Your task to perform on an android device: Open Google Chrome and click the shortcut for Amazon.com Image 0: 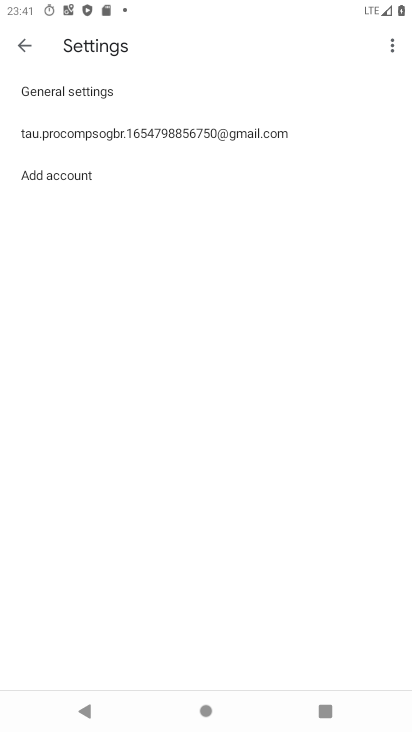
Step 0: press home button
Your task to perform on an android device: Open Google Chrome and click the shortcut for Amazon.com Image 1: 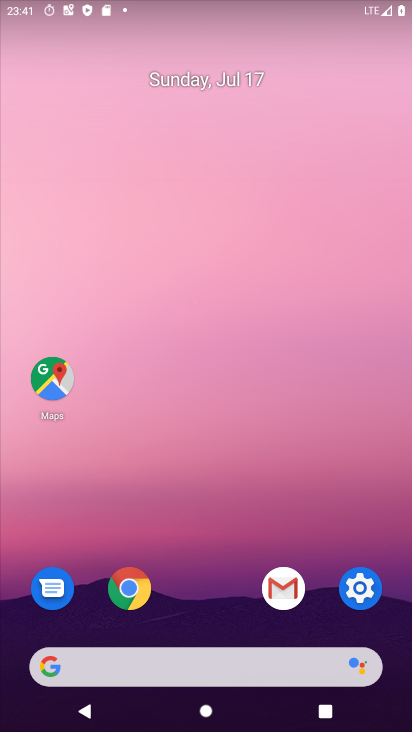
Step 1: click (129, 601)
Your task to perform on an android device: Open Google Chrome and click the shortcut for Amazon.com Image 2: 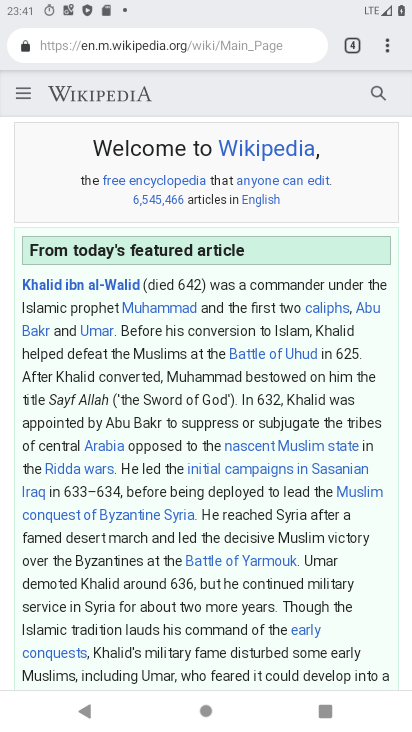
Step 2: click (389, 52)
Your task to perform on an android device: Open Google Chrome and click the shortcut for Amazon.com Image 3: 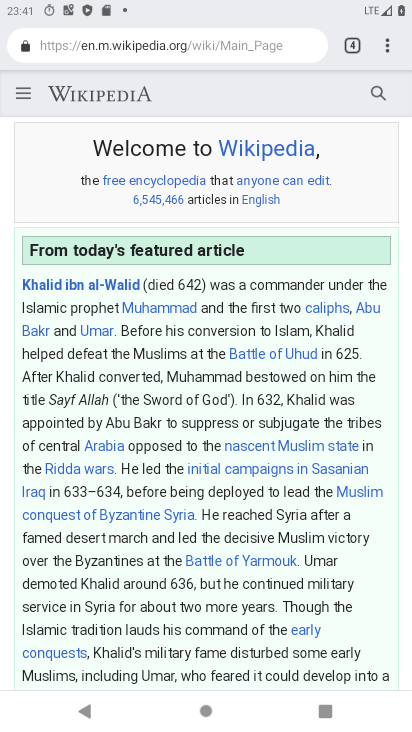
Step 3: click (379, 55)
Your task to perform on an android device: Open Google Chrome and click the shortcut for Amazon.com Image 4: 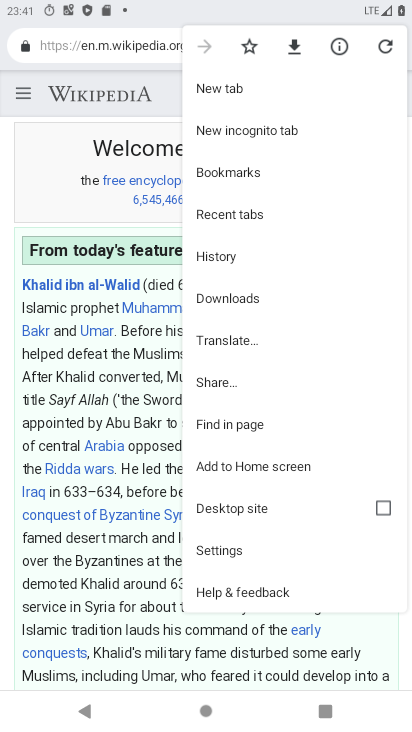
Step 4: click (247, 88)
Your task to perform on an android device: Open Google Chrome and click the shortcut for Amazon.com Image 5: 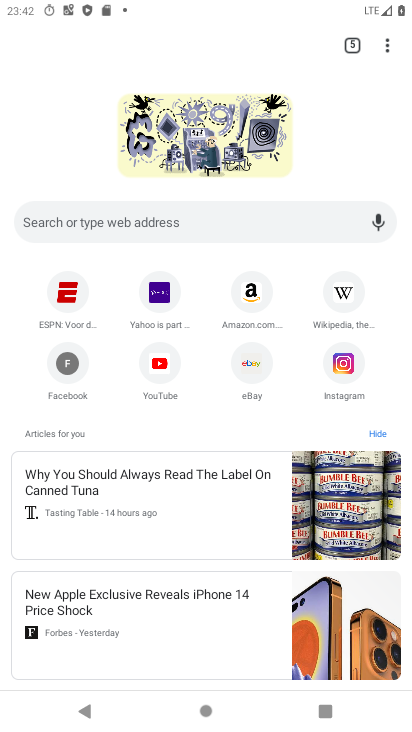
Step 5: click (255, 280)
Your task to perform on an android device: Open Google Chrome and click the shortcut for Amazon.com Image 6: 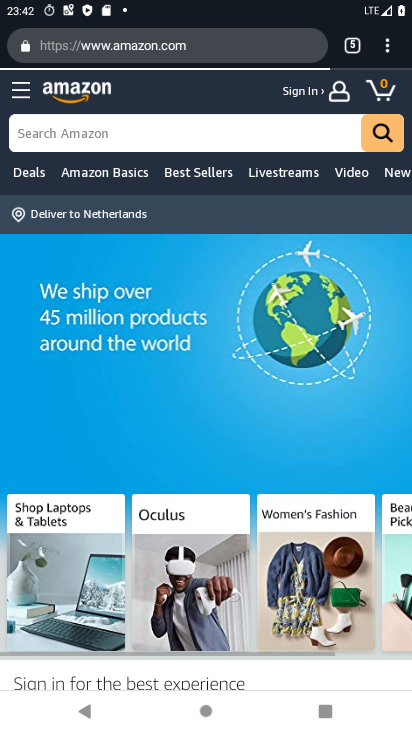
Step 6: click (389, 57)
Your task to perform on an android device: Open Google Chrome and click the shortcut for Amazon.com Image 7: 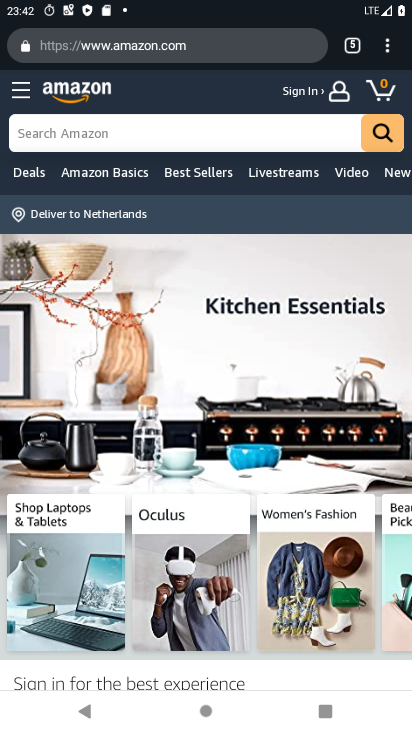
Step 7: click (388, 56)
Your task to perform on an android device: Open Google Chrome and click the shortcut for Amazon.com Image 8: 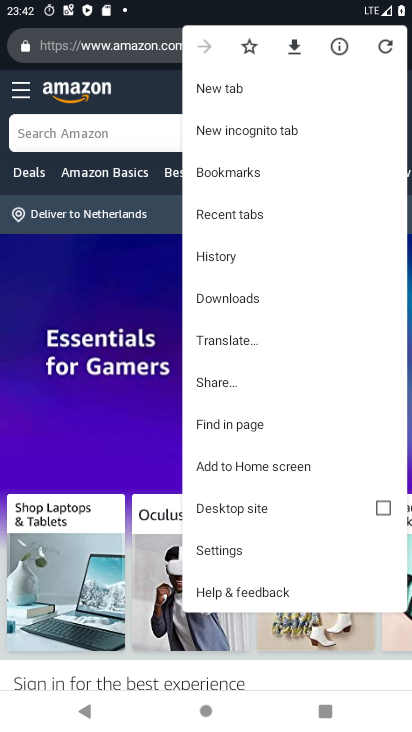
Step 8: click (219, 462)
Your task to perform on an android device: Open Google Chrome and click the shortcut for Amazon.com Image 9: 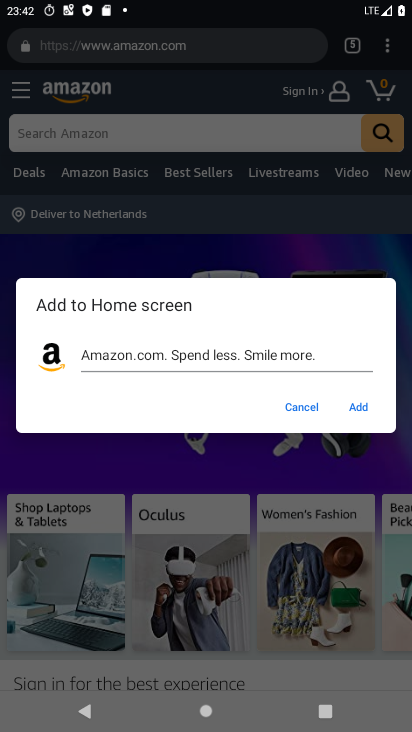
Step 9: click (366, 406)
Your task to perform on an android device: Open Google Chrome and click the shortcut for Amazon.com Image 10: 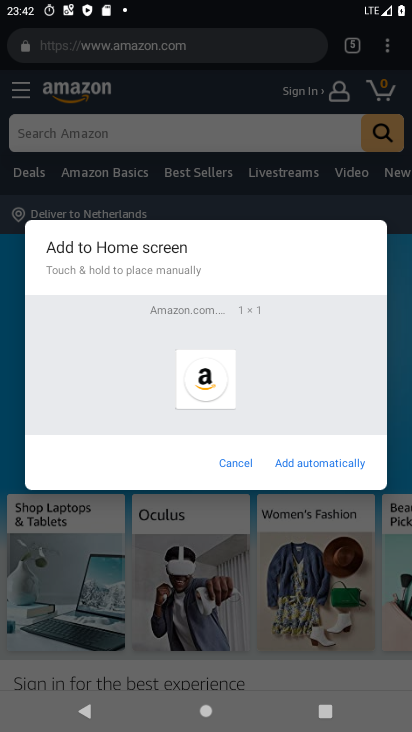
Step 10: task complete